Your task to perform on an android device: Open Chrome and go to the settings page Image 0: 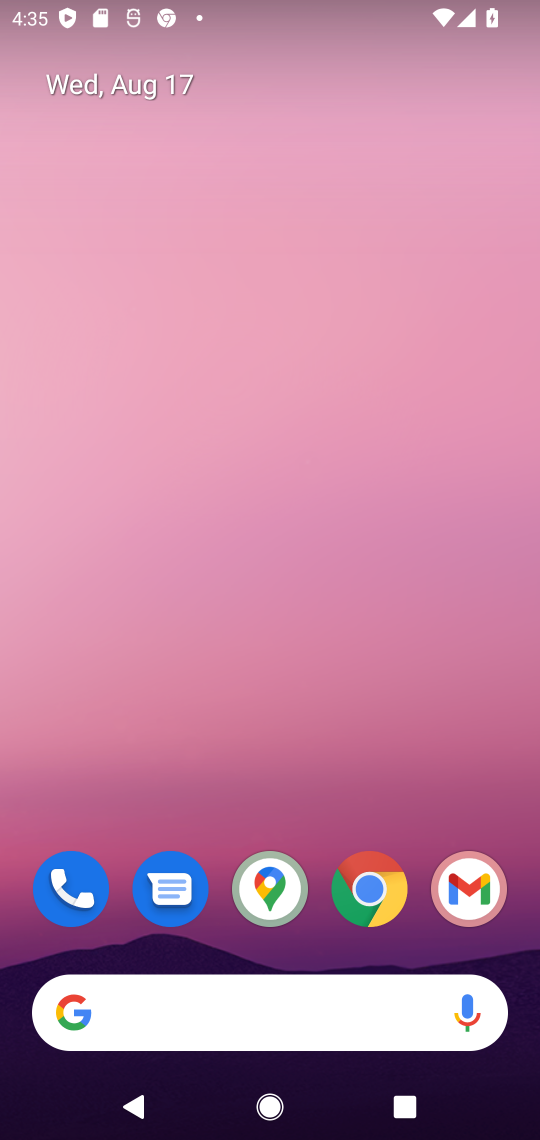
Step 0: click (371, 889)
Your task to perform on an android device: Open Chrome and go to the settings page Image 1: 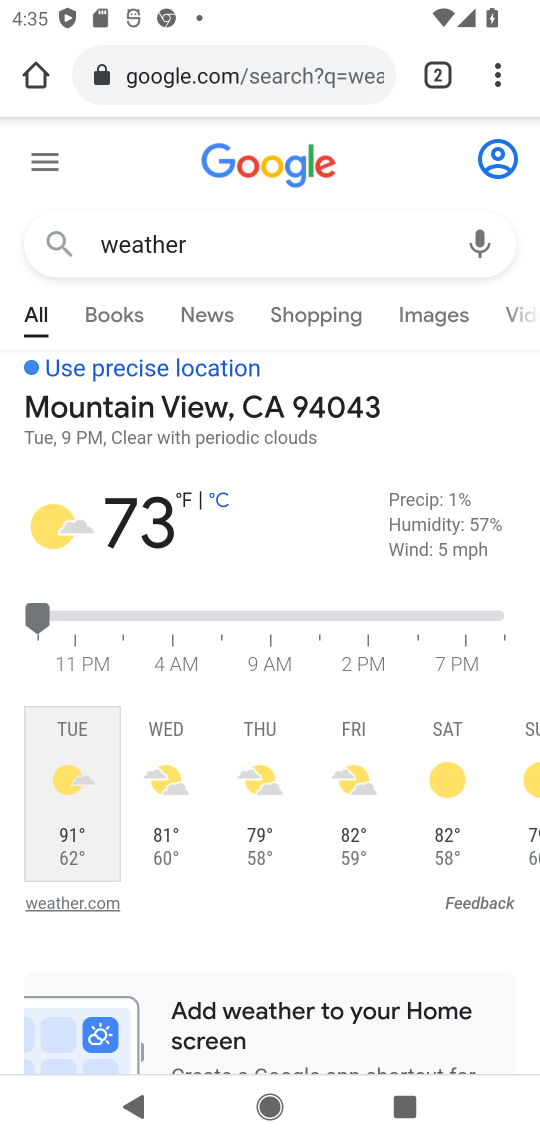
Step 1: click (492, 76)
Your task to perform on an android device: Open Chrome and go to the settings page Image 2: 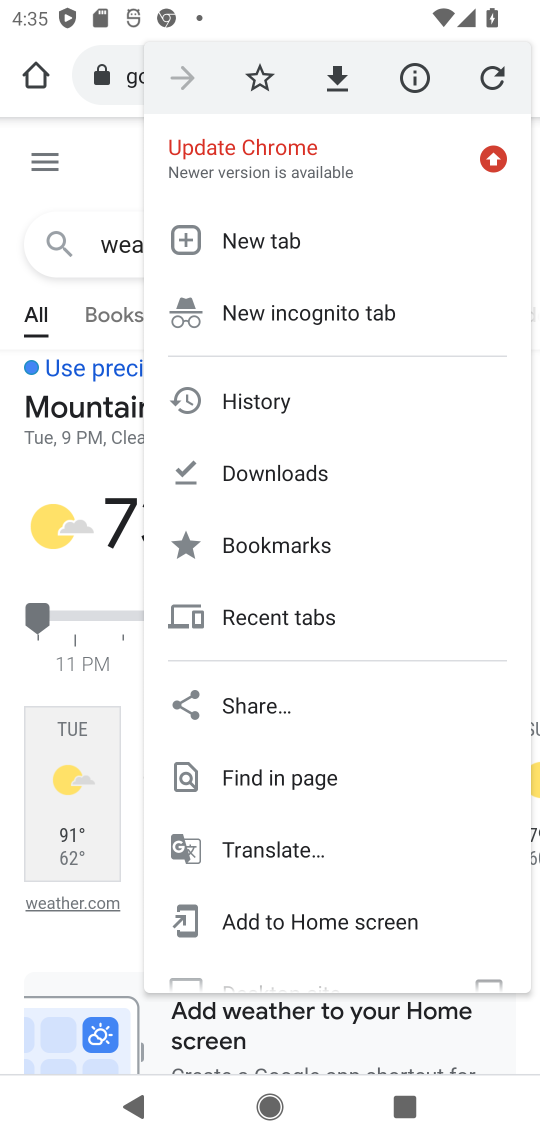
Step 2: drag from (364, 854) to (359, 297)
Your task to perform on an android device: Open Chrome and go to the settings page Image 3: 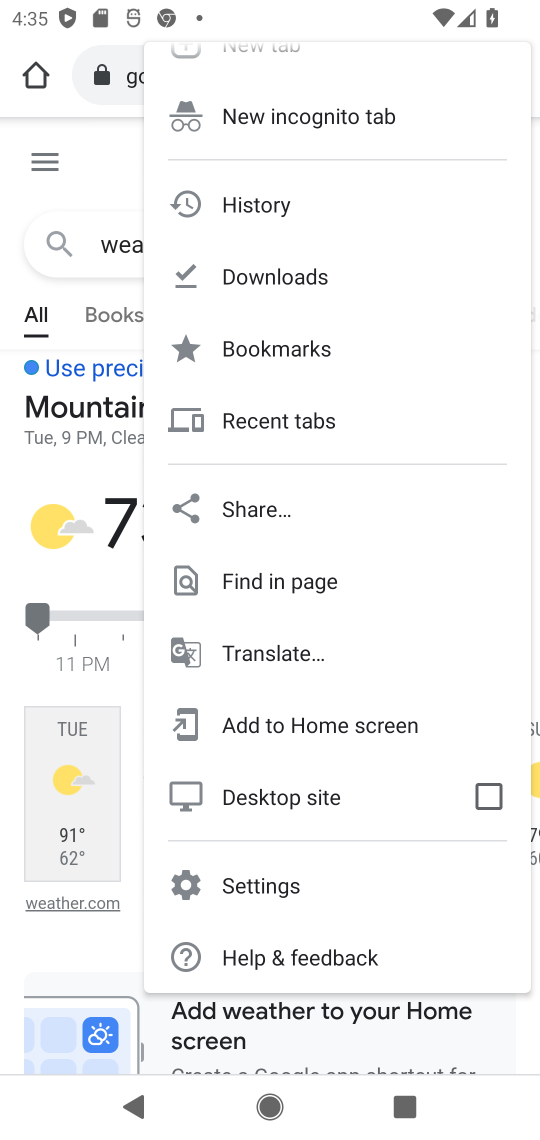
Step 3: click (256, 888)
Your task to perform on an android device: Open Chrome and go to the settings page Image 4: 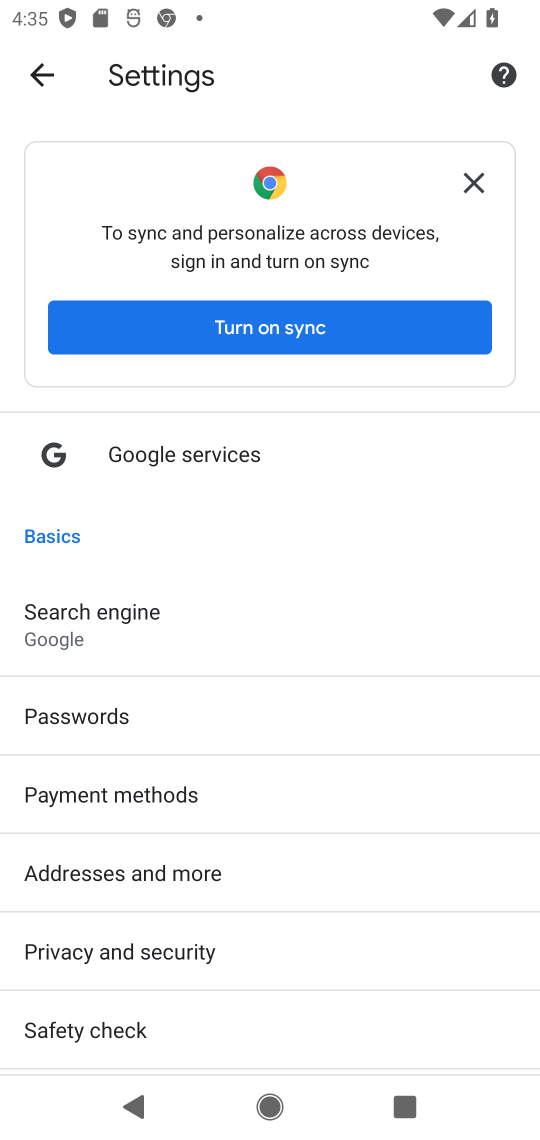
Step 4: task complete